Your task to perform on an android device: turn on bluetooth scan Image 0: 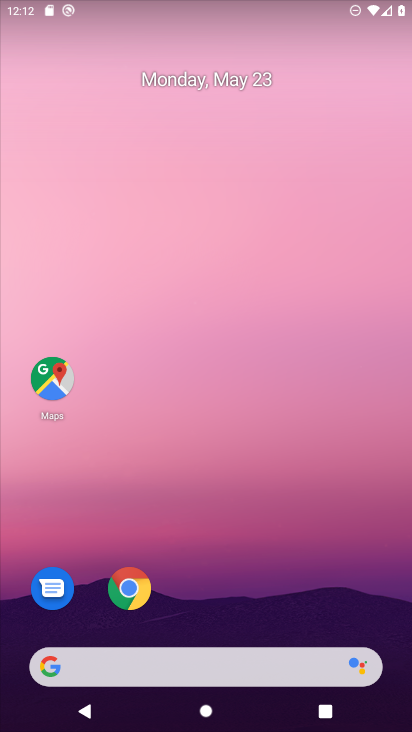
Step 0: drag from (263, 689) to (293, 84)
Your task to perform on an android device: turn on bluetooth scan Image 1: 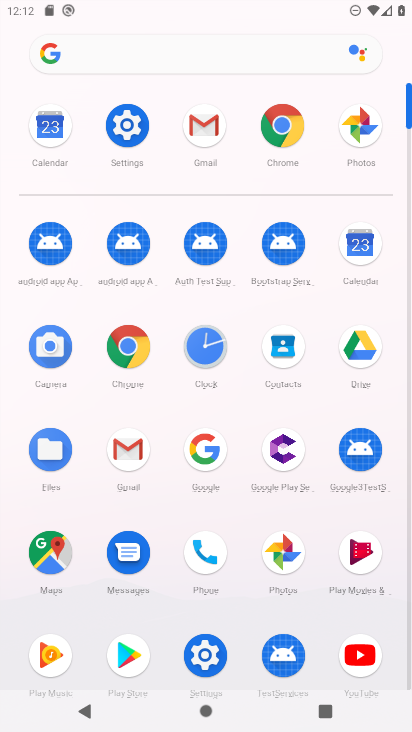
Step 1: click (131, 138)
Your task to perform on an android device: turn on bluetooth scan Image 2: 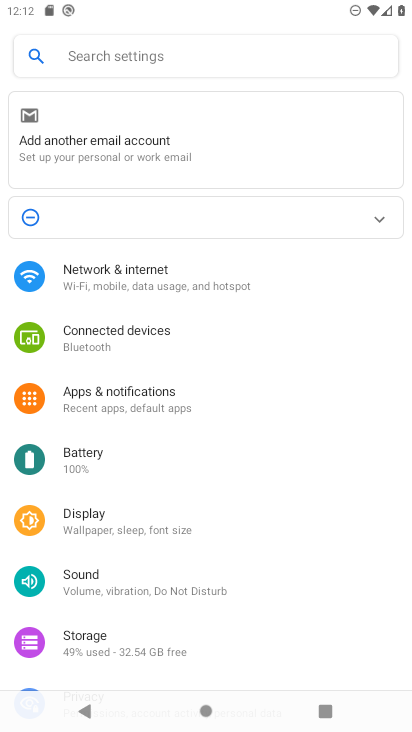
Step 2: click (111, 51)
Your task to perform on an android device: turn on bluetooth scan Image 3: 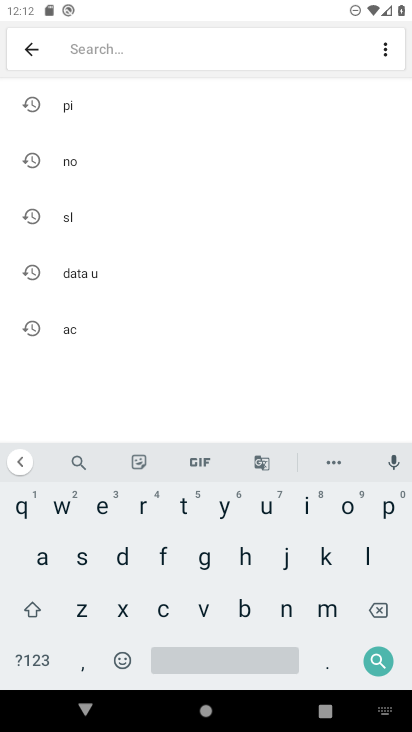
Step 3: click (361, 559)
Your task to perform on an android device: turn on bluetooth scan Image 4: 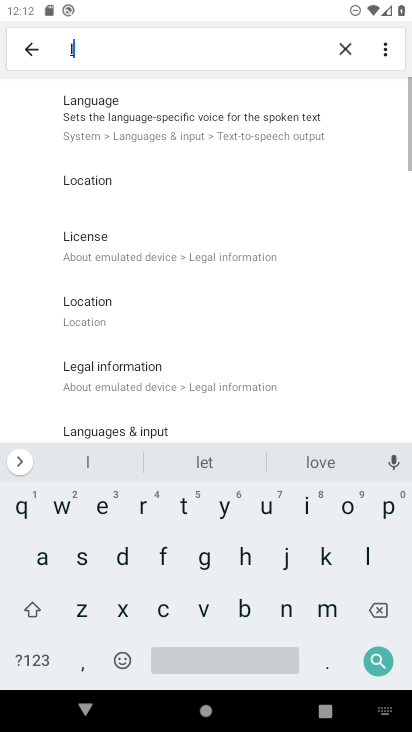
Step 4: click (343, 514)
Your task to perform on an android device: turn on bluetooth scan Image 5: 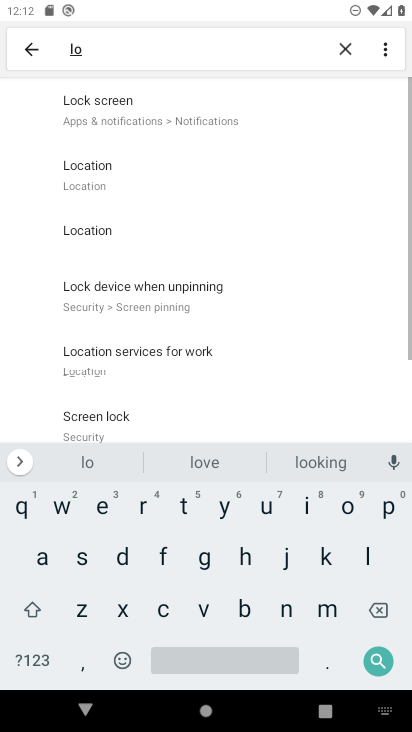
Step 5: click (125, 186)
Your task to perform on an android device: turn on bluetooth scan Image 6: 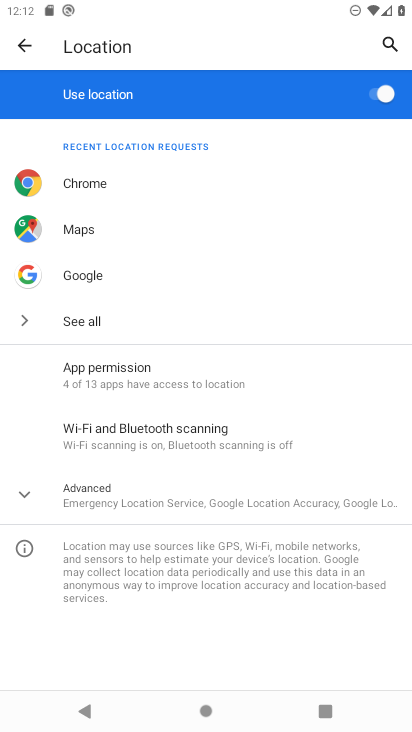
Step 6: click (169, 434)
Your task to perform on an android device: turn on bluetooth scan Image 7: 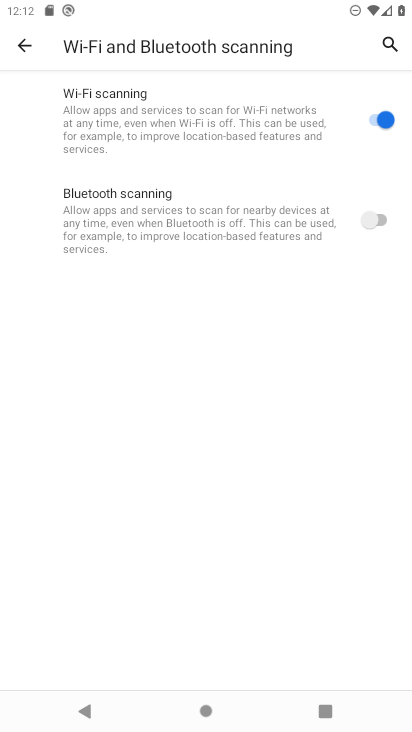
Step 7: click (311, 244)
Your task to perform on an android device: turn on bluetooth scan Image 8: 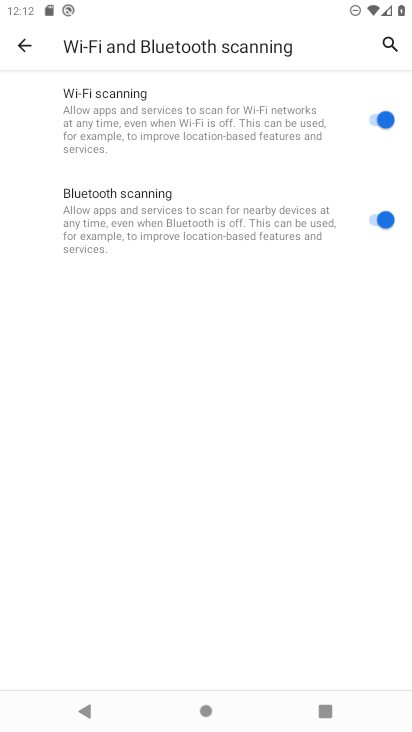
Step 8: task complete